Your task to perform on an android device: turn on the 24-hour format for clock Image 0: 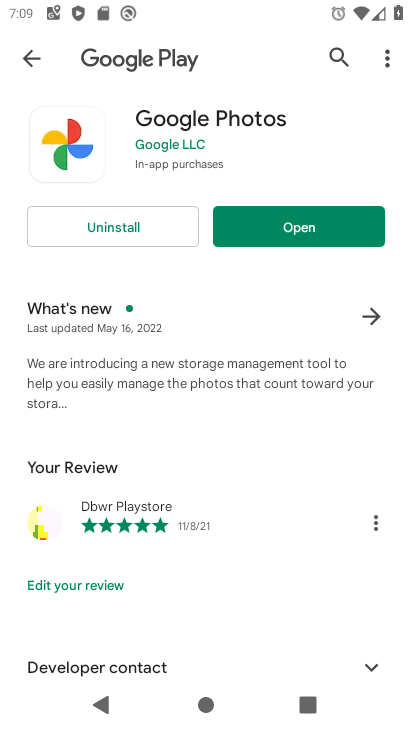
Step 0: press home button
Your task to perform on an android device: turn on the 24-hour format for clock Image 1: 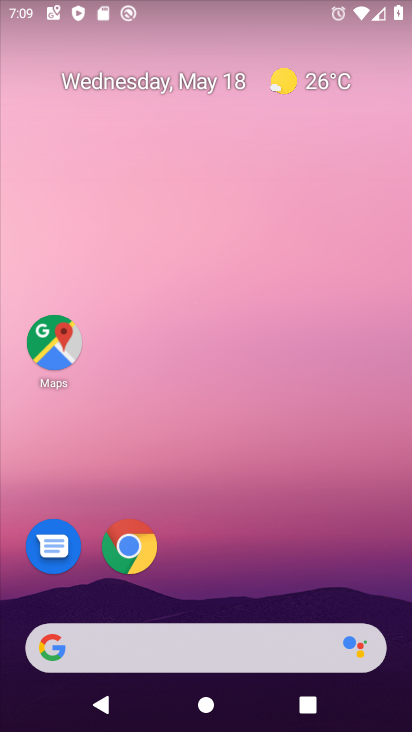
Step 1: drag from (391, 632) to (360, 3)
Your task to perform on an android device: turn on the 24-hour format for clock Image 2: 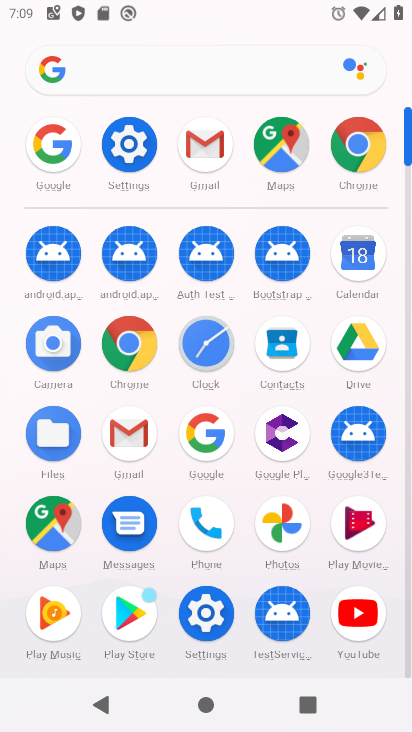
Step 2: click (225, 360)
Your task to perform on an android device: turn on the 24-hour format for clock Image 3: 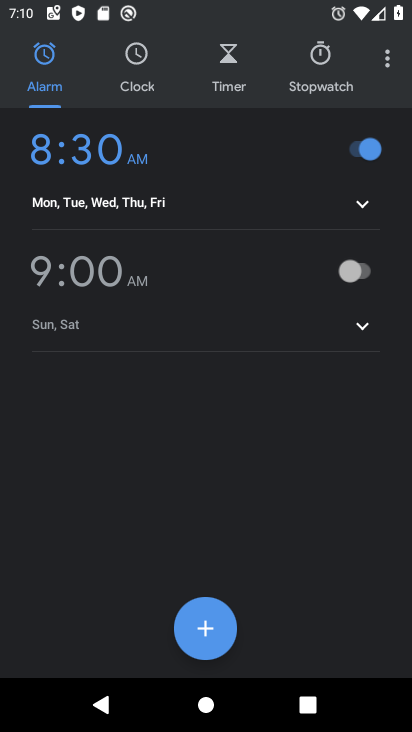
Step 3: click (383, 61)
Your task to perform on an android device: turn on the 24-hour format for clock Image 4: 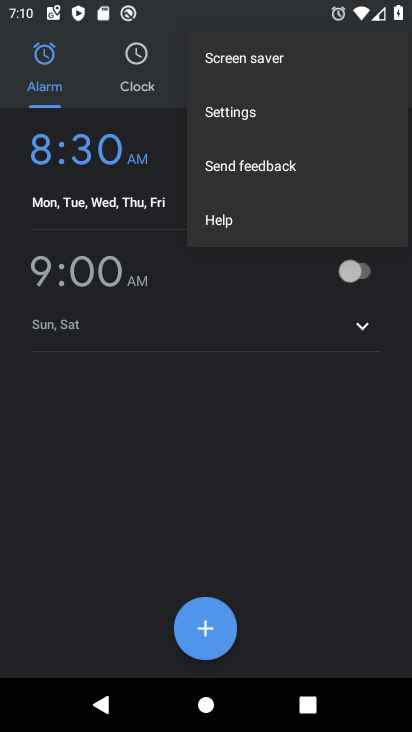
Step 4: click (257, 108)
Your task to perform on an android device: turn on the 24-hour format for clock Image 5: 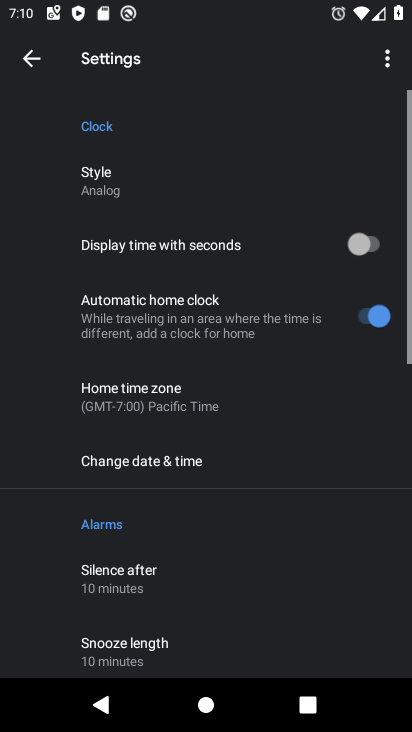
Step 5: click (148, 476)
Your task to perform on an android device: turn on the 24-hour format for clock Image 6: 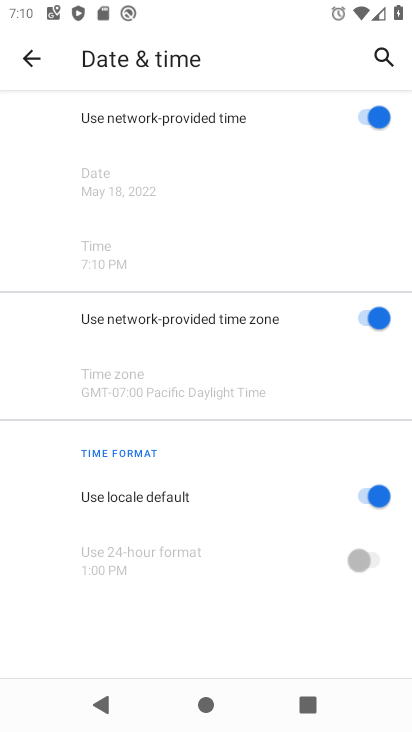
Step 6: task complete